Your task to perform on an android device: turn off notifications in google photos Image 0: 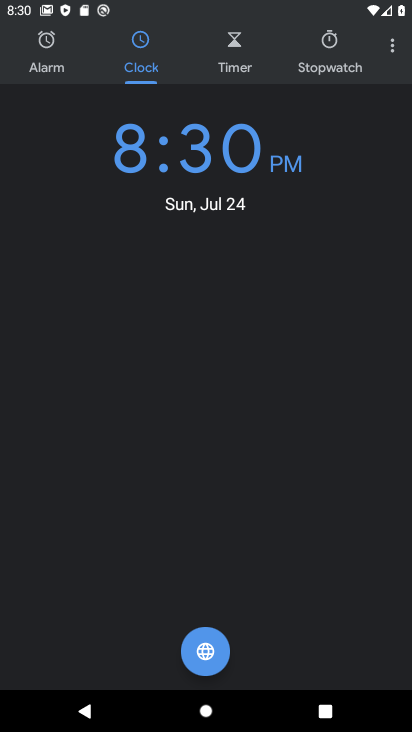
Step 0: press home button
Your task to perform on an android device: turn off notifications in google photos Image 1: 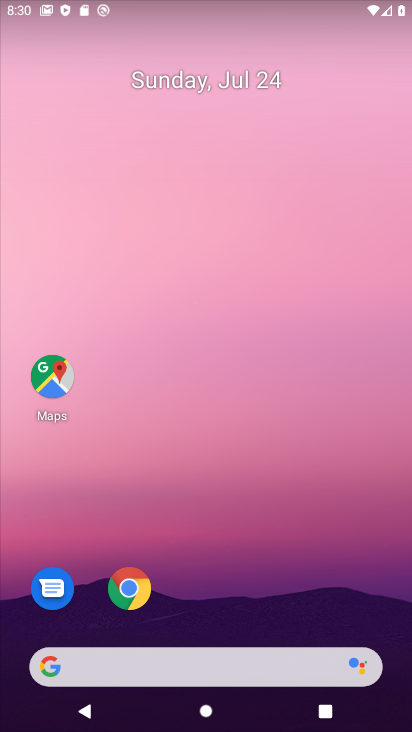
Step 1: drag from (244, 618) to (212, 2)
Your task to perform on an android device: turn off notifications in google photos Image 2: 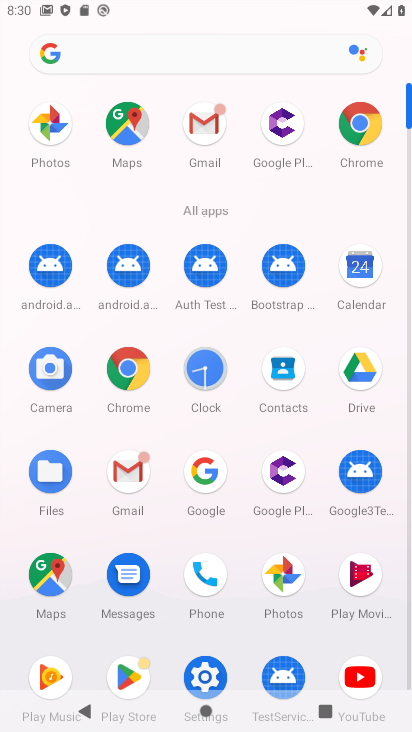
Step 2: click (278, 569)
Your task to perform on an android device: turn off notifications in google photos Image 3: 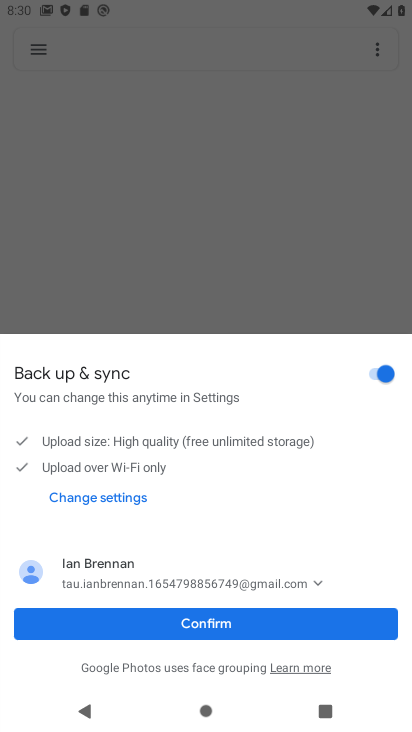
Step 3: click (199, 626)
Your task to perform on an android device: turn off notifications in google photos Image 4: 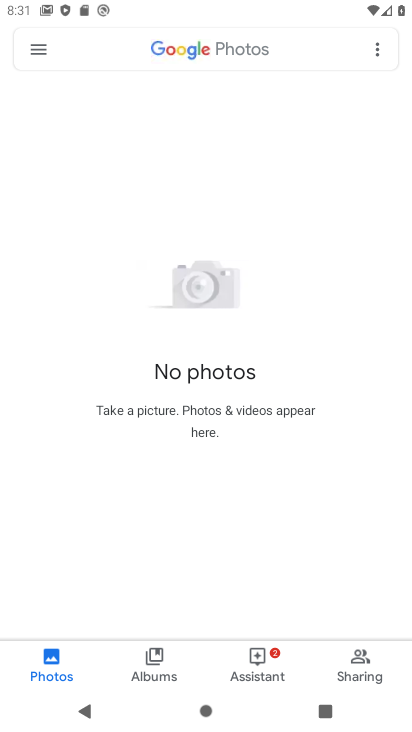
Step 4: click (34, 46)
Your task to perform on an android device: turn off notifications in google photos Image 5: 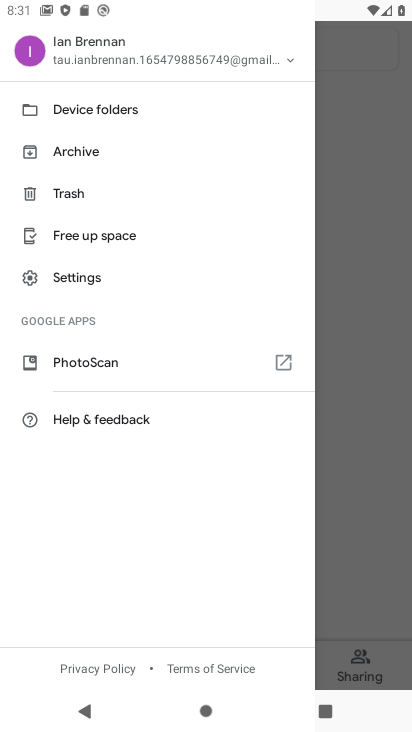
Step 5: click (85, 279)
Your task to perform on an android device: turn off notifications in google photos Image 6: 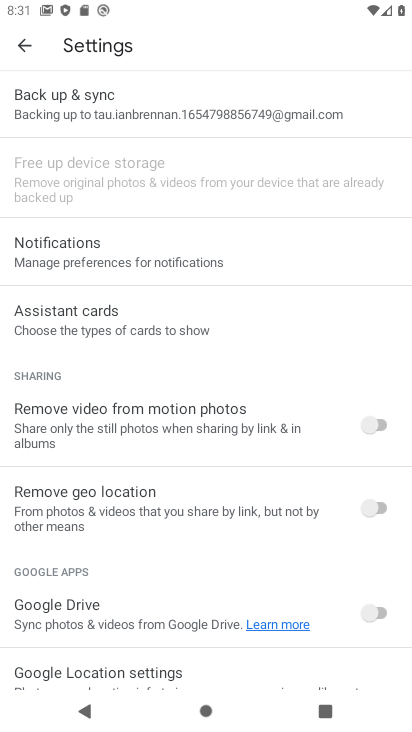
Step 6: click (78, 254)
Your task to perform on an android device: turn off notifications in google photos Image 7: 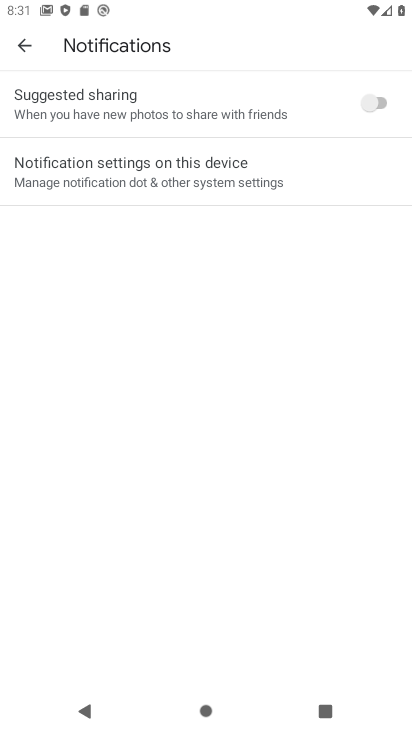
Step 7: click (185, 169)
Your task to perform on an android device: turn off notifications in google photos Image 8: 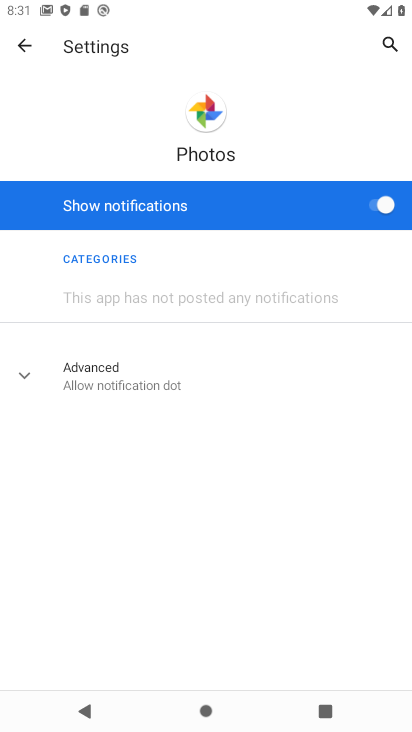
Step 8: click (384, 211)
Your task to perform on an android device: turn off notifications in google photos Image 9: 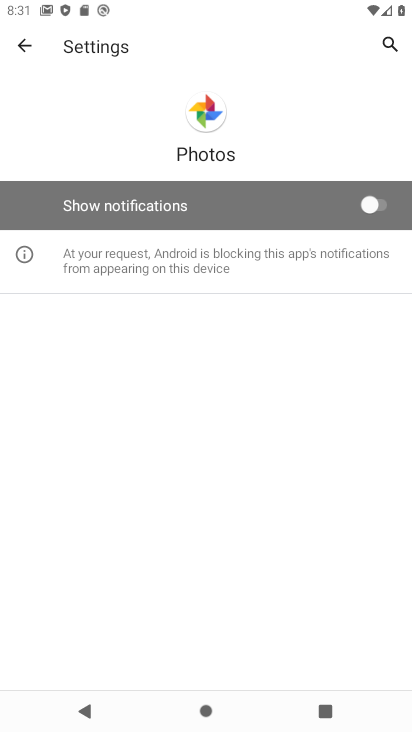
Step 9: task complete